Your task to perform on an android device: Open the Play Movies app and select the watchlist tab. Image 0: 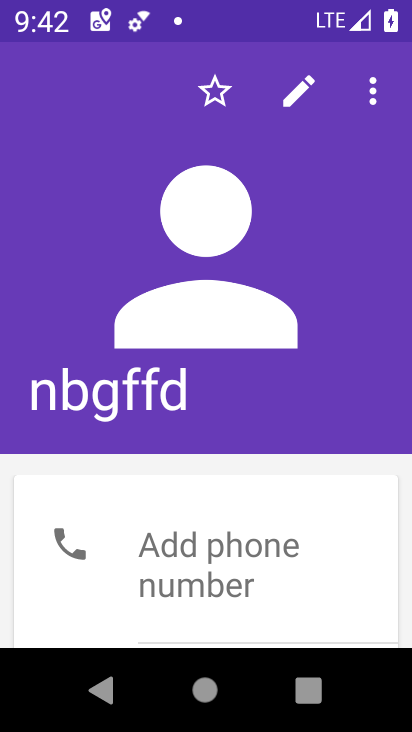
Step 0: press home button
Your task to perform on an android device: Open the Play Movies app and select the watchlist tab. Image 1: 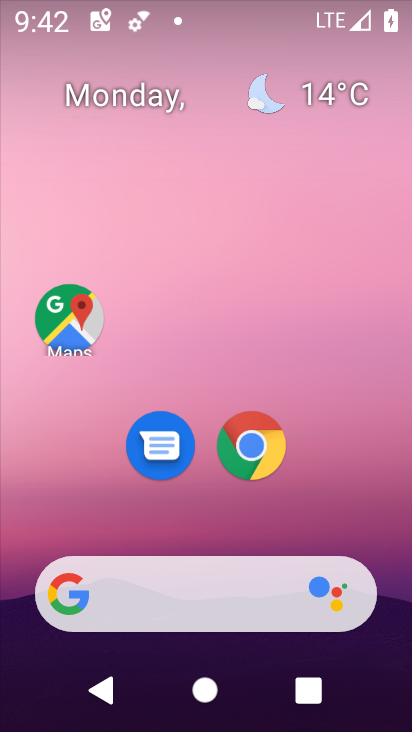
Step 1: drag from (207, 523) to (209, 0)
Your task to perform on an android device: Open the Play Movies app and select the watchlist tab. Image 2: 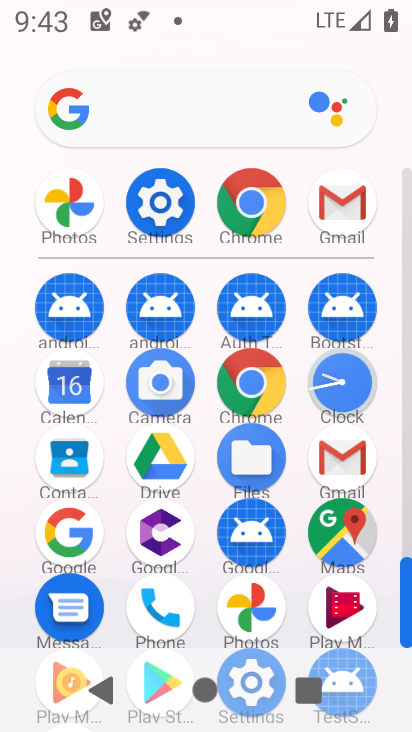
Step 2: click (341, 603)
Your task to perform on an android device: Open the Play Movies app and select the watchlist tab. Image 3: 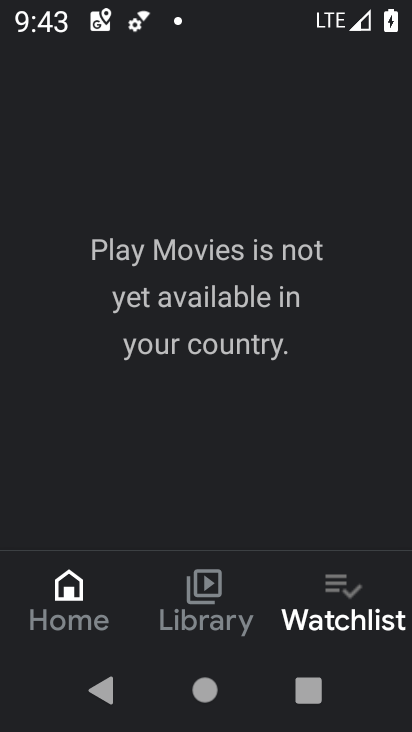
Step 3: task complete